Your task to perform on an android device: Show me the alarms in the clock app Image 0: 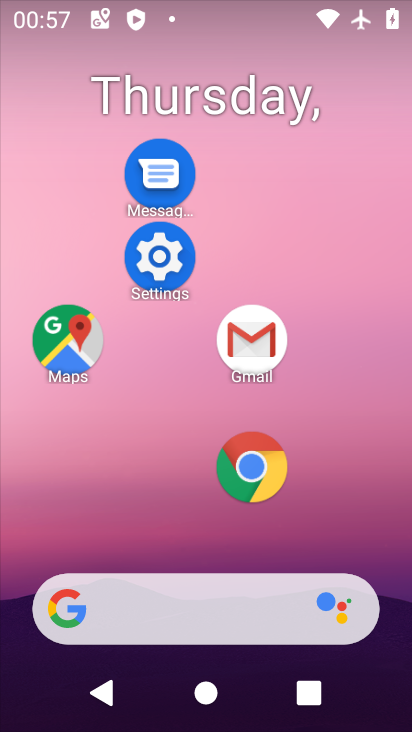
Step 0: click (304, 22)
Your task to perform on an android device: Show me the alarms in the clock app Image 1: 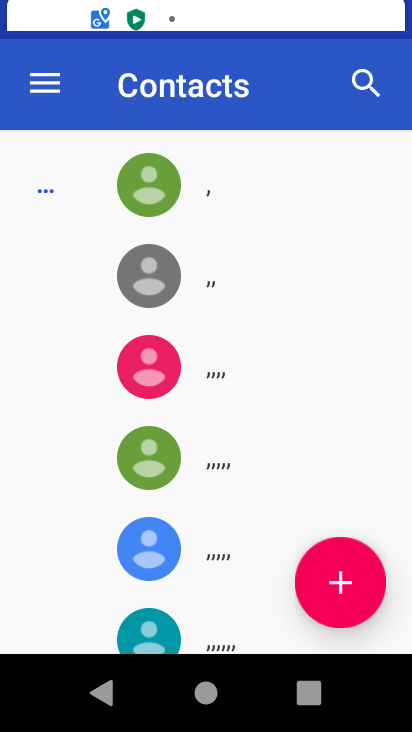
Step 1: drag from (205, 523) to (250, 148)
Your task to perform on an android device: Show me the alarms in the clock app Image 2: 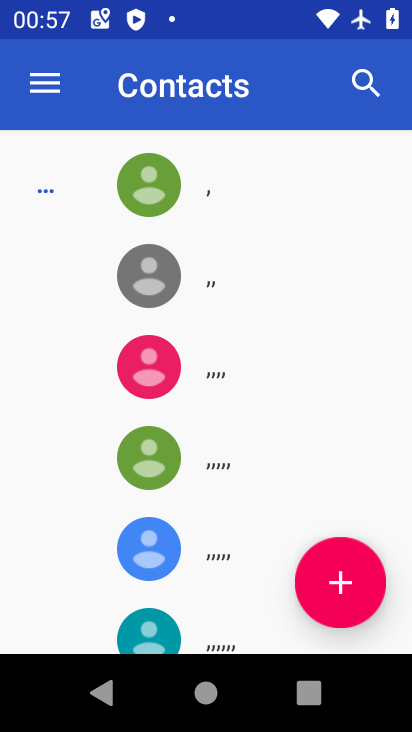
Step 2: press home button
Your task to perform on an android device: Show me the alarms in the clock app Image 3: 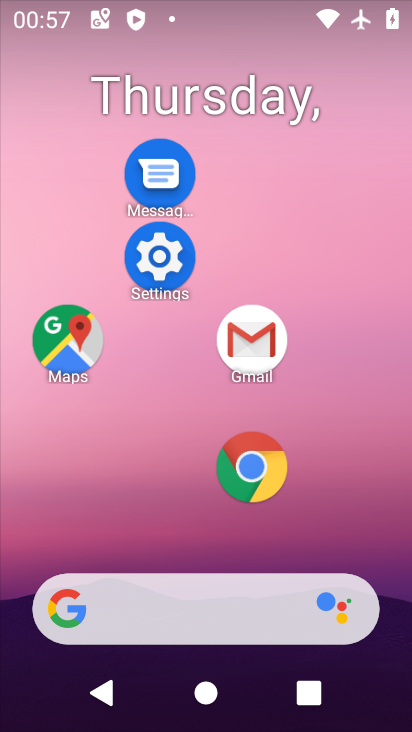
Step 3: drag from (191, 542) to (243, 210)
Your task to perform on an android device: Show me the alarms in the clock app Image 4: 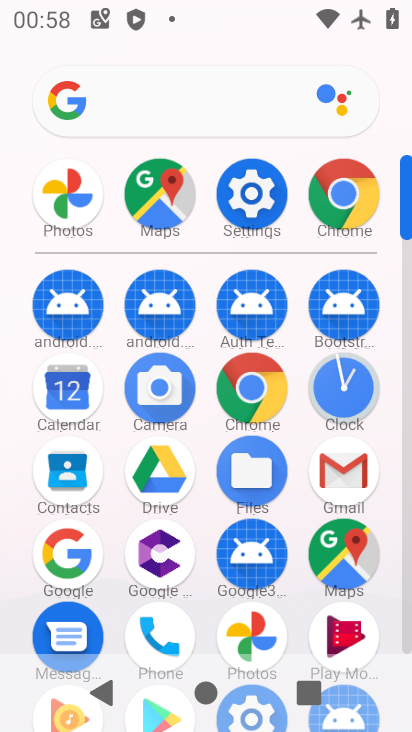
Step 4: click (329, 397)
Your task to perform on an android device: Show me the alarms in the clock app Image 5: 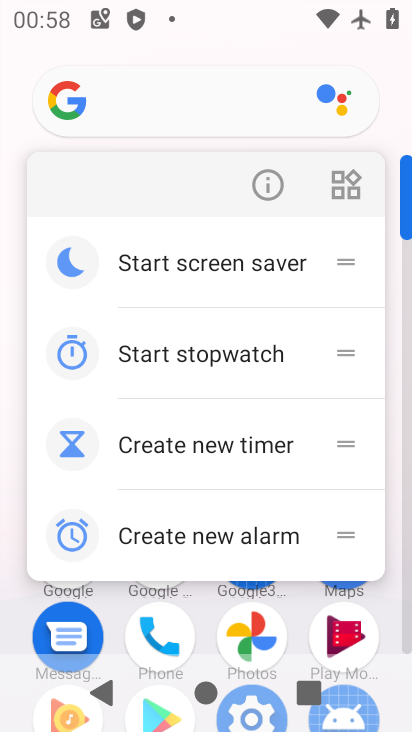
Step 5: click (277, 186)
Your task to perform on an android device: Show me the alarms in the clock app Image 6: 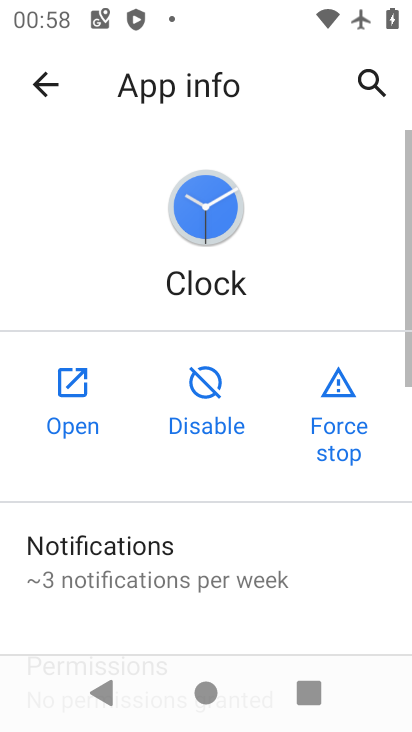
Step 6: click (56, 419)
Your task to perform on an android device: Show me the alarms in the clock app Image 7: 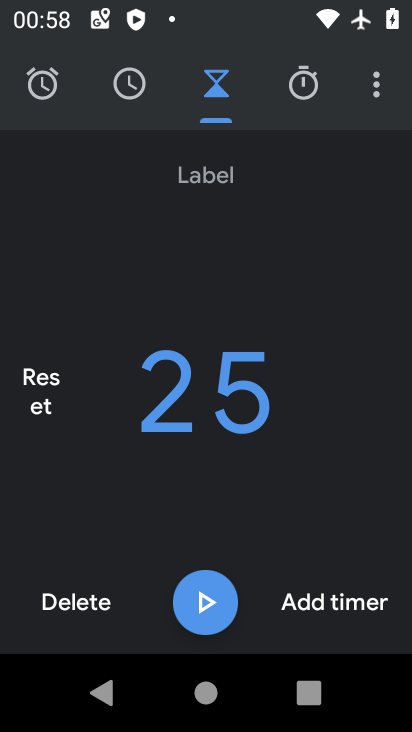
Step 7: drag from (375, 77) to (231, 161)
Your task to perform on an android device: Show me the alarms in the clock app Image 8: 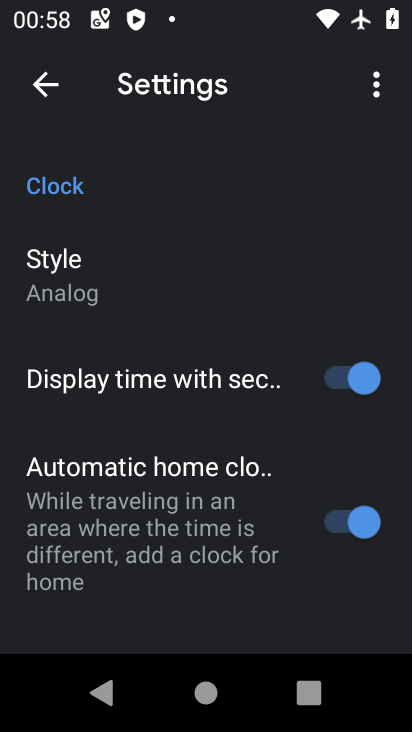
Step 8: click (62, 87)
Your task to perform on an android device: Show me the alarms in the clock app Image 9: 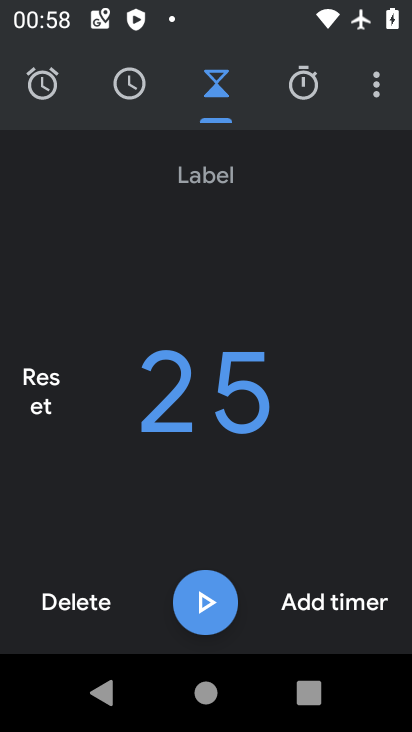
Step 9: click (53, 102)
Your task to perform on an android device: Show me the alarms in the clock app Image 10: 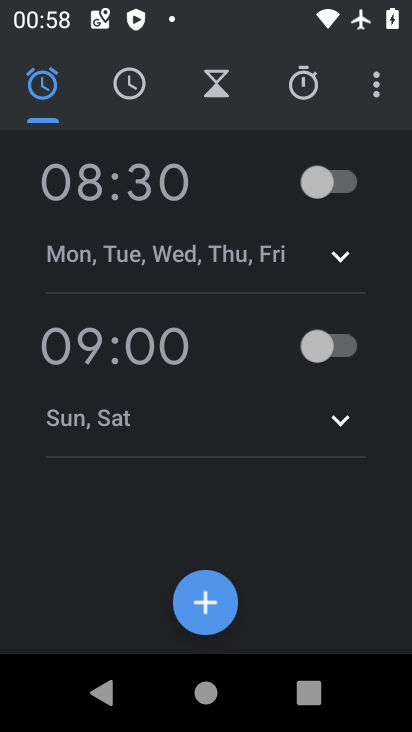
Step 10: task complete